Your task to perform on an android device: Do I have any events tomorrow? Image 0: 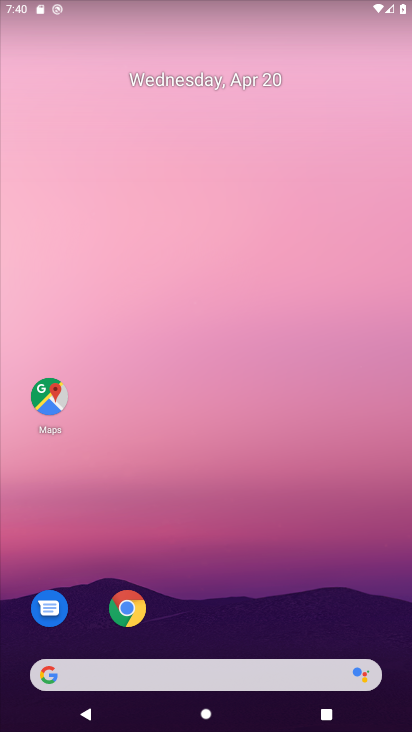
Step 0: drag from (224, 588) to (324, 148)
Your task to perform on an android device: Do I have any events tomorrow? Image 1: 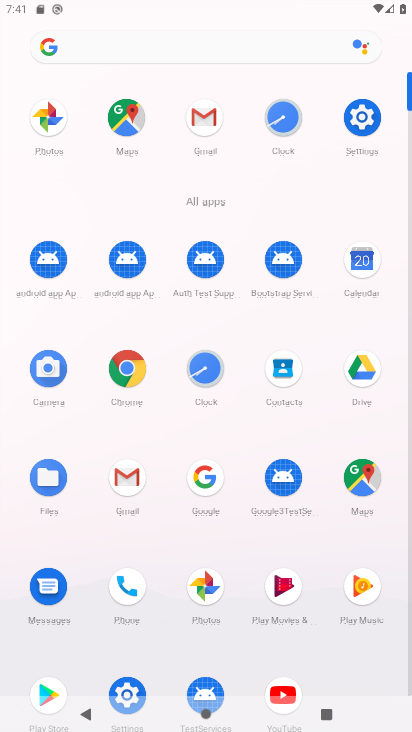
Step 1: click (358, 259)
Your task to perform on an android device: Do I have any events tomorrow? Image 2: 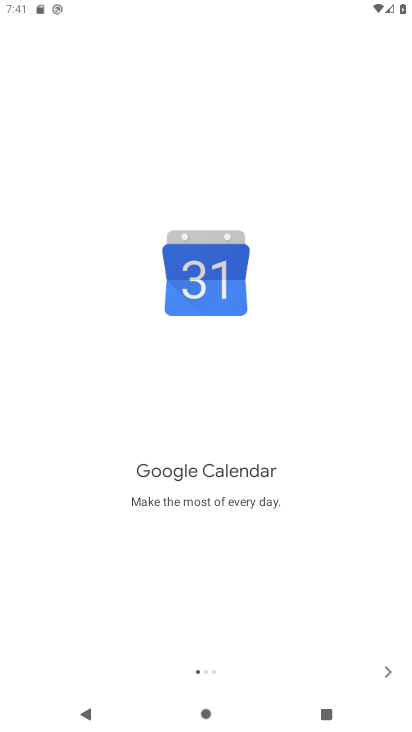
Step 2: click (392, 667)
Your task to perform on an android device: Do I have any events tomorrow? Image 3: 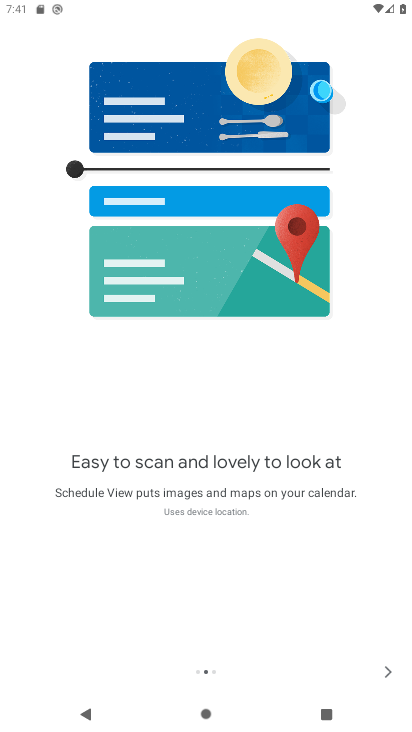
Step 3: click (380, 666)
Your task to perform on an android device: Do I have any events tomorrow? Image 4: 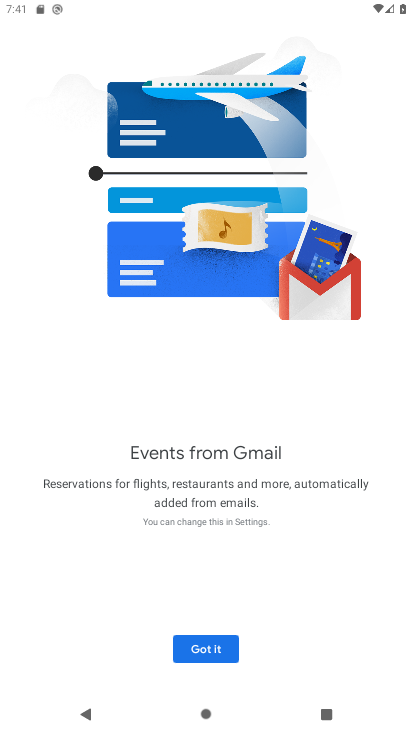
Step 4: click (205, 652)
Your task to perform on an android device: Do I have any events tomorrow? Image 5: 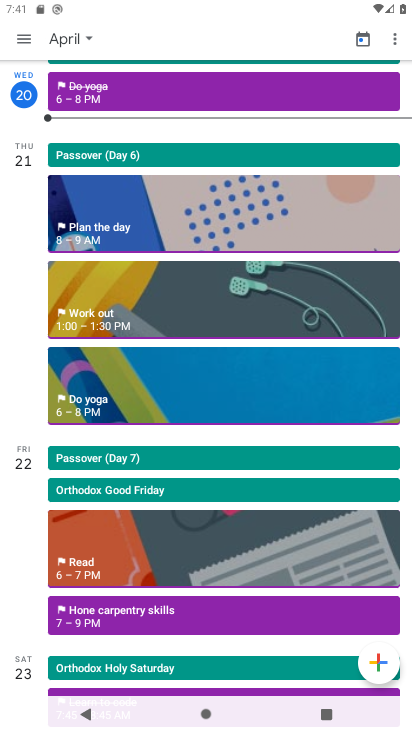
Step 5: click (15, 34)
Your task to perform on an android device: Do I have any events tomorrow? Image 6: 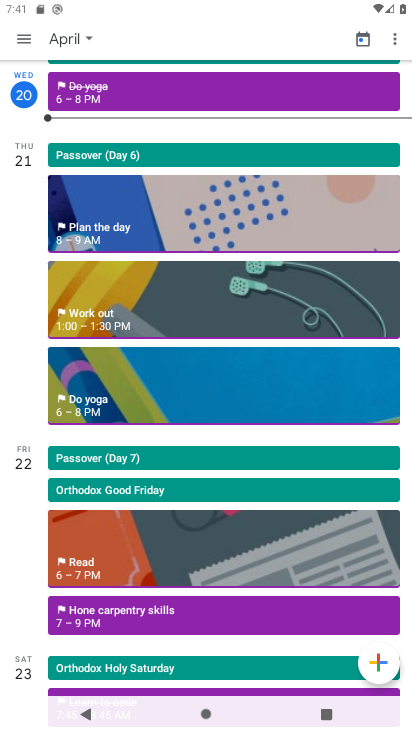
Step 6: click (24, 32)
Your task to perform on an android device: Do I have any events tomorrow? Image 7: 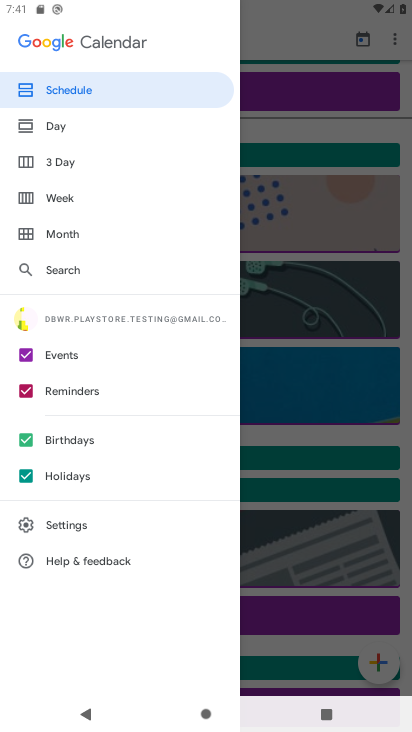
Step 7: click (24, 32)
Your task to perform on an android device: Do I have any events tomorrow? Image 8: 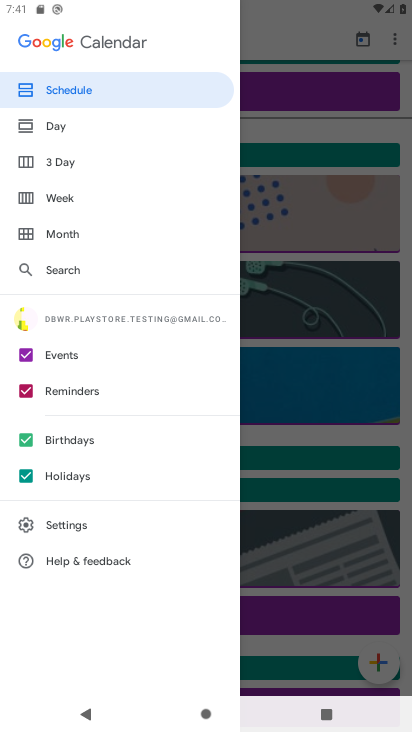
Step 8: click (78, 226)
Your task to perform on an android device: Do I have any events tomorrow? Image 9: 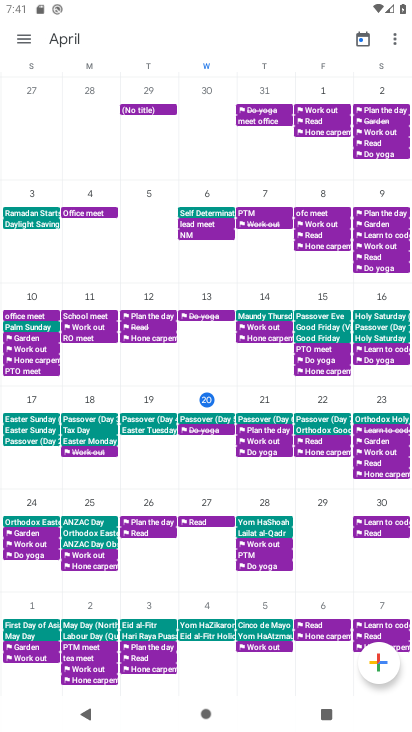
Step 9: click (268, 397)
Your task to perform on an android device: Do I have any events tomorrow? Image 10: 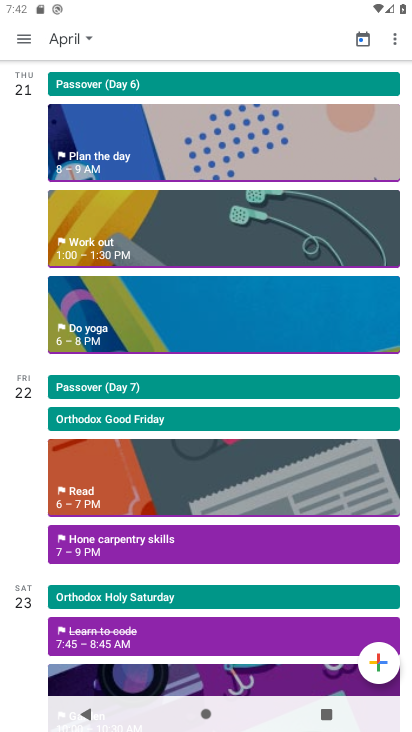
Step 10: task complete